Your task to perform on an android device: What is the news today? Image 0: 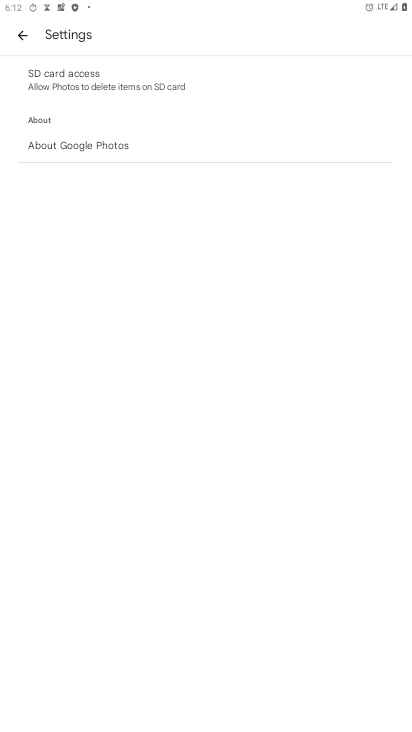
Step 0: press home button
Your task to perform on an android device: What is the news today? Image 1: 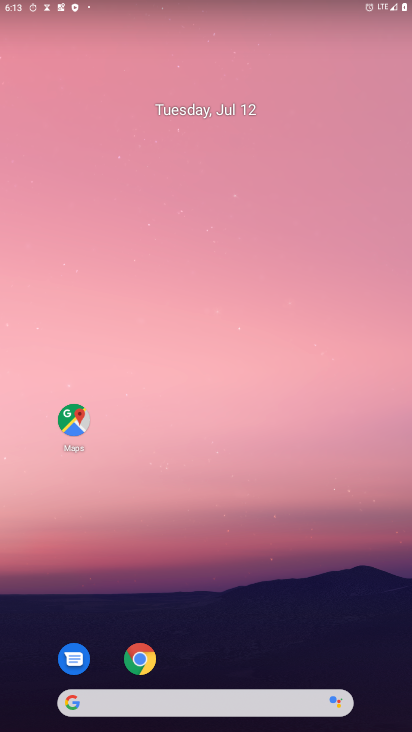
Step 1: drag from (164, 228) to (163, 186)
Your task to perform on an android device: What is the news today? Image 2: 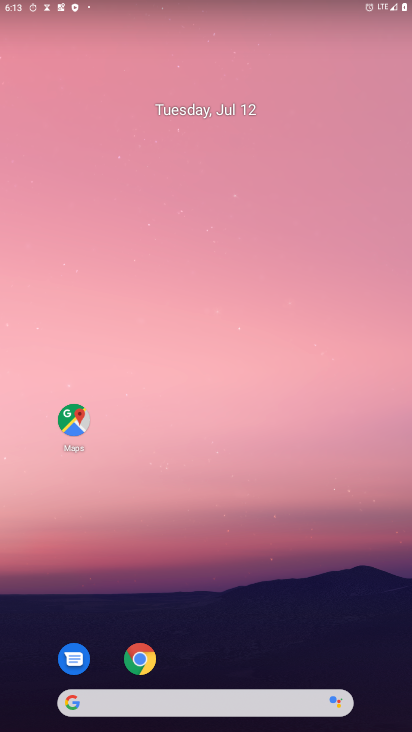
Step 2: drag from (268, 313) to (282, 4)
Your task to perform on an android device: What is the news today? Image 3: 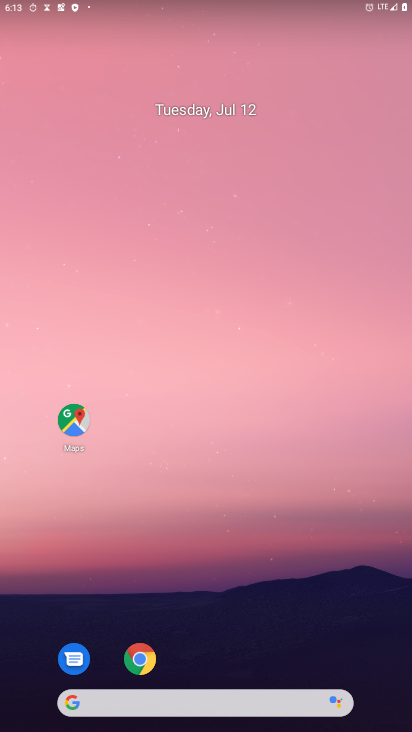
Step 3: drag from (181, 485) to (187, 170)
Your task to perform on an android device: What is the news today? Image 4: 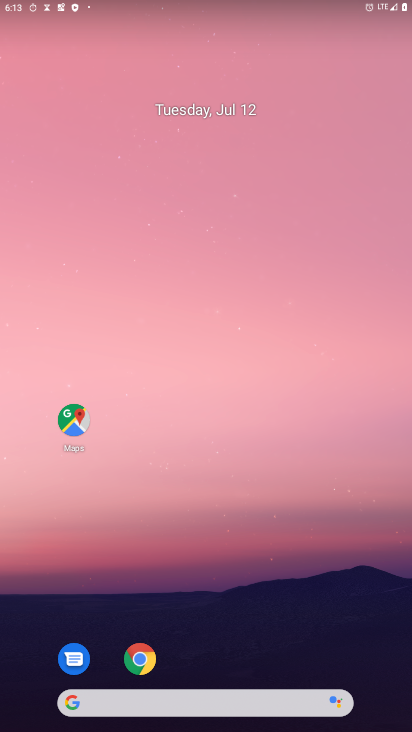
Step 4: drag from (228, 364) to (241, 66)
Your task to perform on an android device: What is the news today? Image 5: 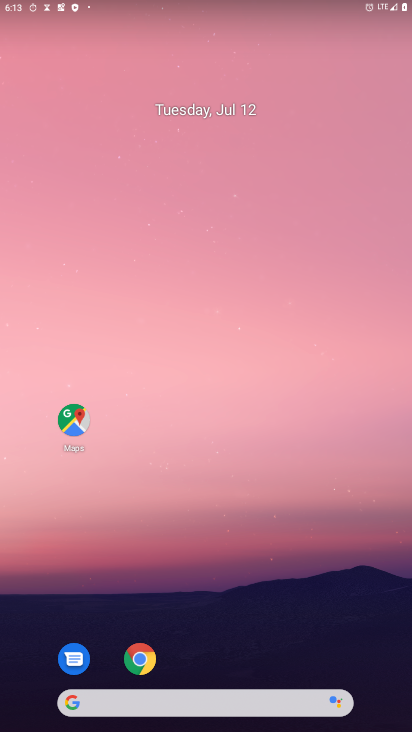
Step 5: drag from (182, 201) to (166, 39)
Your task to perform on an android device: What is the news today? Image 6: 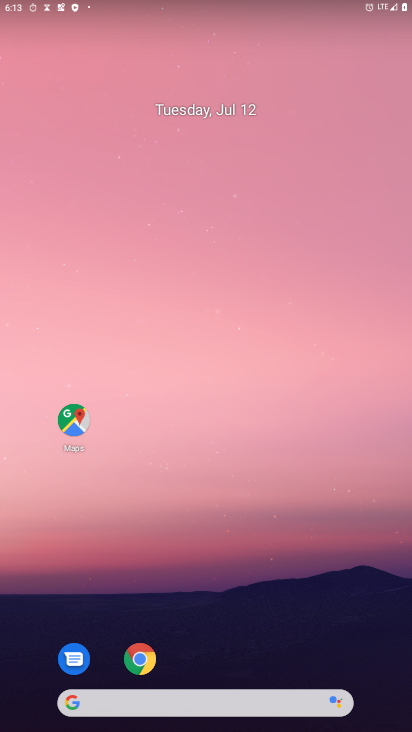
Step 6: click (220, 53)
Your task to perform on an android device: What is the news today? Image 7: 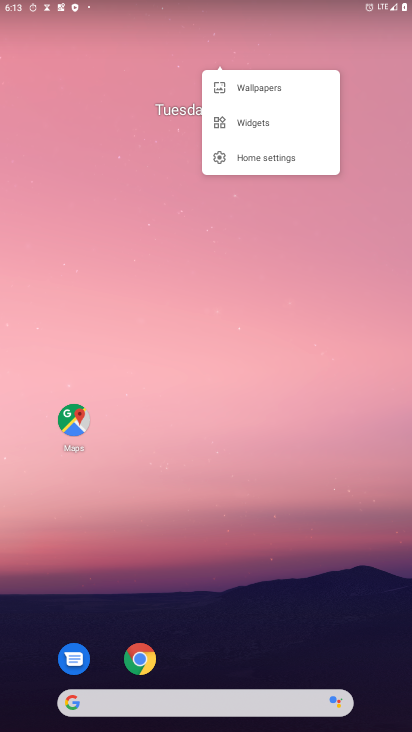
Step 7: click (223, 557)
Your task to perform on an android device: What is the news today? Image 8: 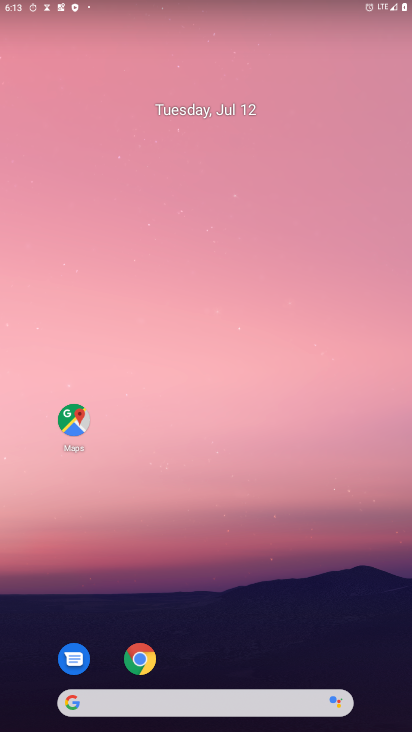
Step 8: drag from (235, 414) to (248, 237)
Your task to perform on an android device: What is the news today? Image 9: 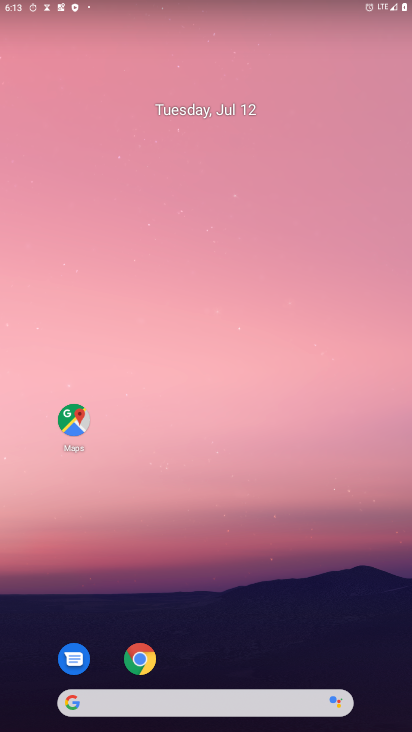
Step 9: drag from (206, 231) to (221, 164)
Your task to perform on an android device: What is the news today? Image 10: 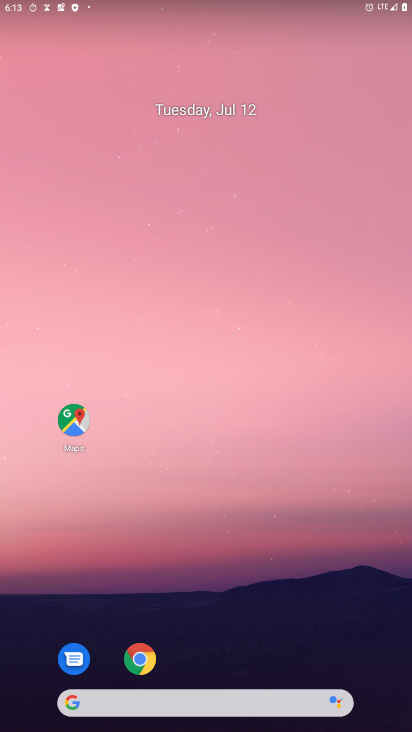
Step 10: drag from (217, 476) to (191, 69)
Your task to perform on an android device: What is the news today? Image 11: 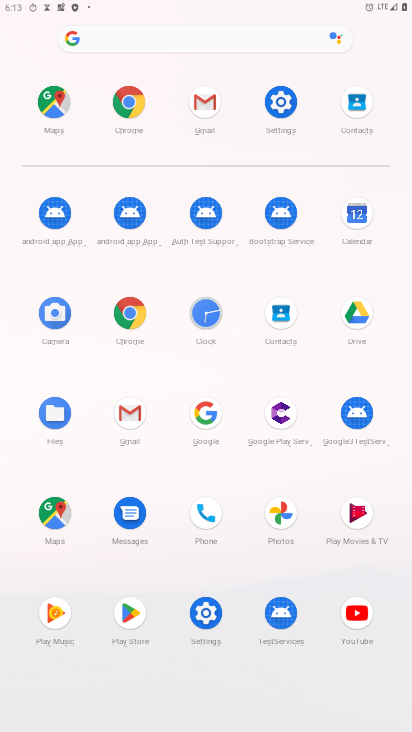
Step 11: click (197, 431)
Your task to perform on an android device: What is the news today? Image 12: 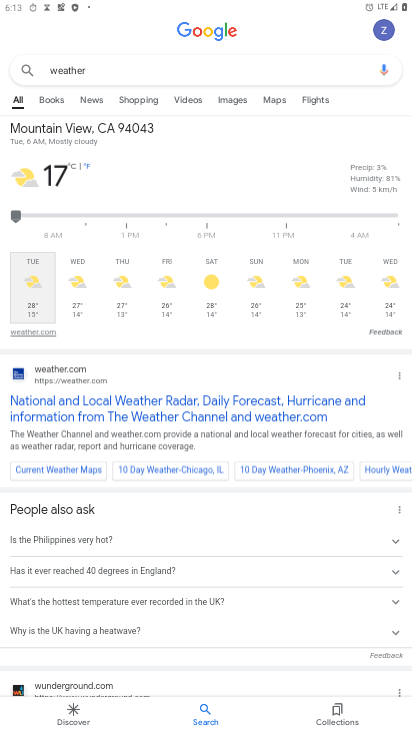
Step 12: click (97, 66)
Your task to perform on an android device: What is the news today? Image 13: 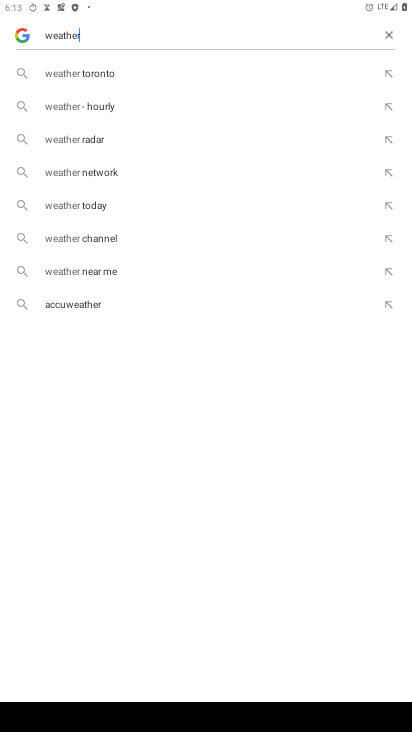
Step 13: click (387, 37)
Your task to perform on an android device: What is the news today? Image 14: 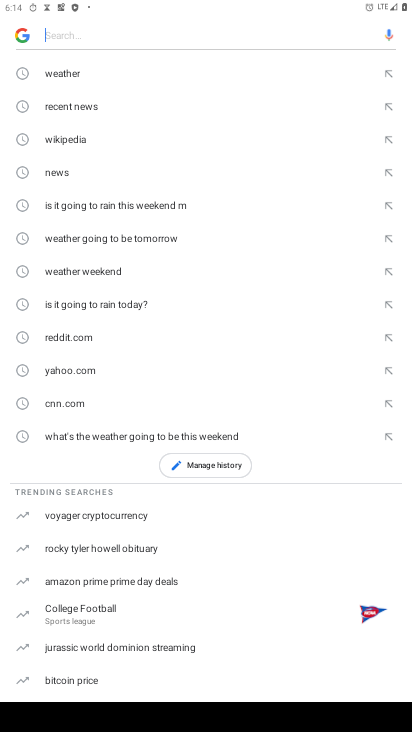
Step 14: type "news today"
Your task to perform on an android device: What is the news today? Image 15: 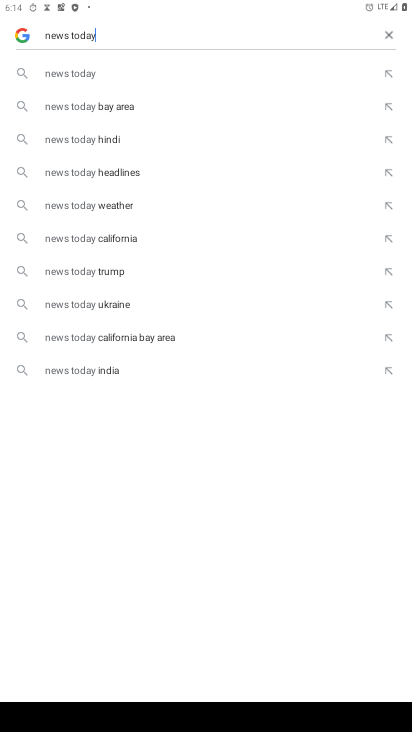
Step 15: click (76, 71)
Your task to perform on an android device: What is the news today? Image 16: 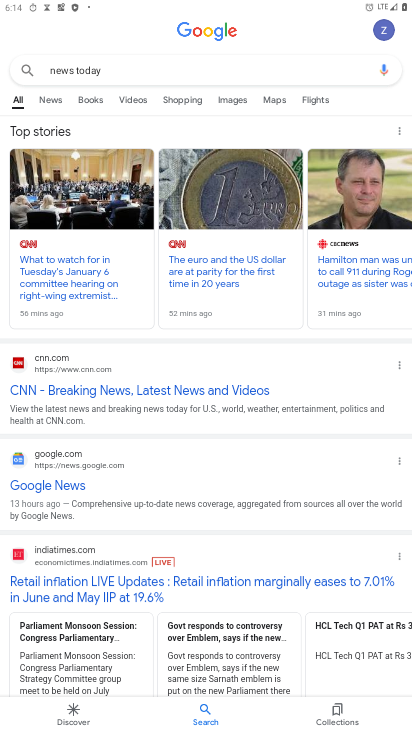
Step 16: task complete